Your task to perform on an android device: add a contact Image 0: 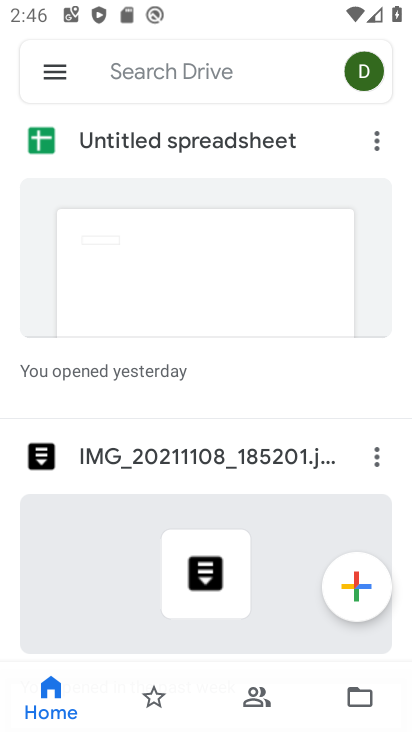
Step 0: press home button
Your task to perform on an android device: add a contact Image 1: 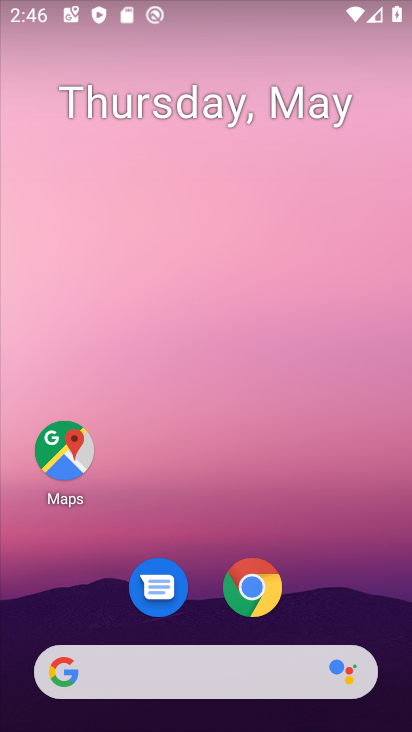
Step 1: drag from (185, 512) to (125, 2)
Your task to perform on an android device: add a contact Image 2: 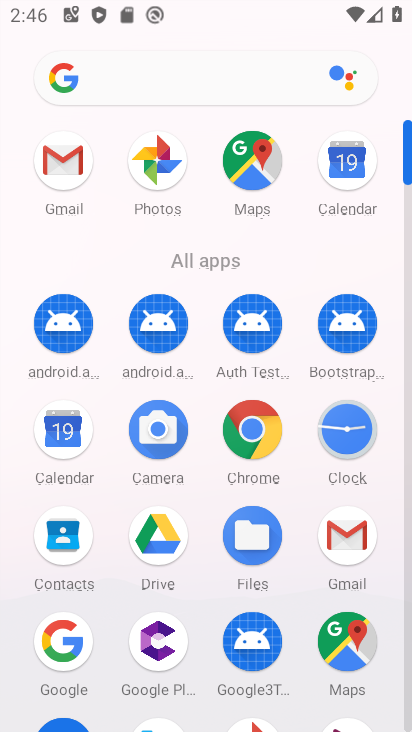
Step 2: click (68, 540)
Your task to perform on an android device: add a contact Image 3: 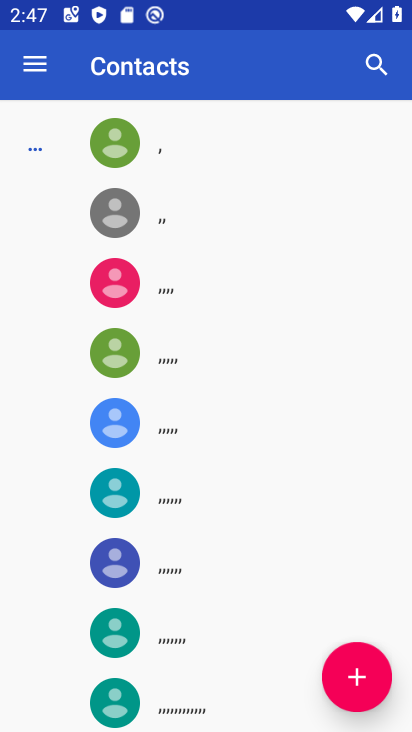
Step 3: click (340, 683)
Your task to perform on an android device: add a contact Image 4: 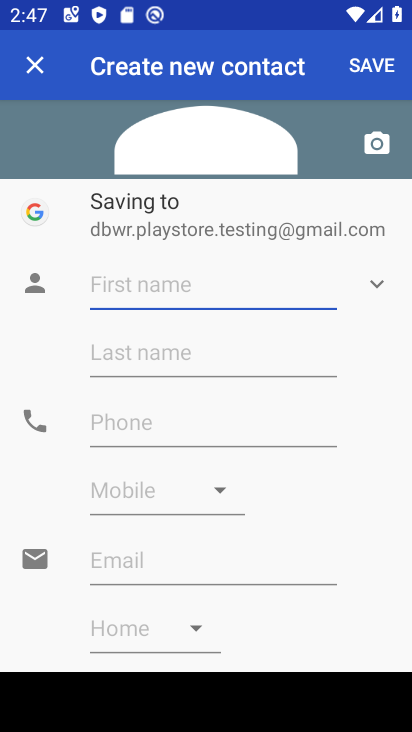
Step 4: type "jj"
Your task to perform on an android device: add a contact Image 5: 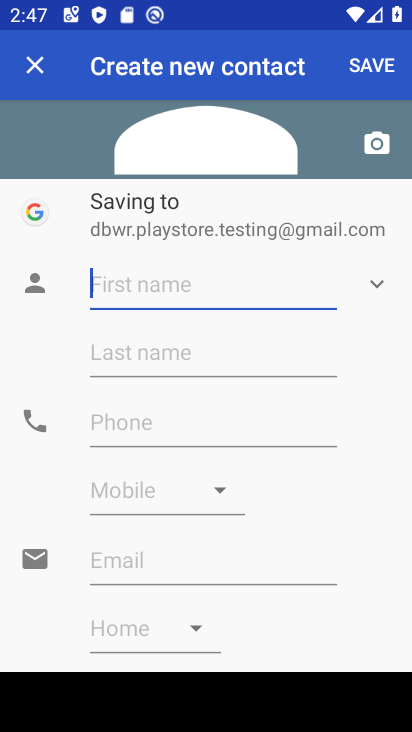
Step 5: click (287, 417)
Your task to perform on an android device: add a contact Image 6: 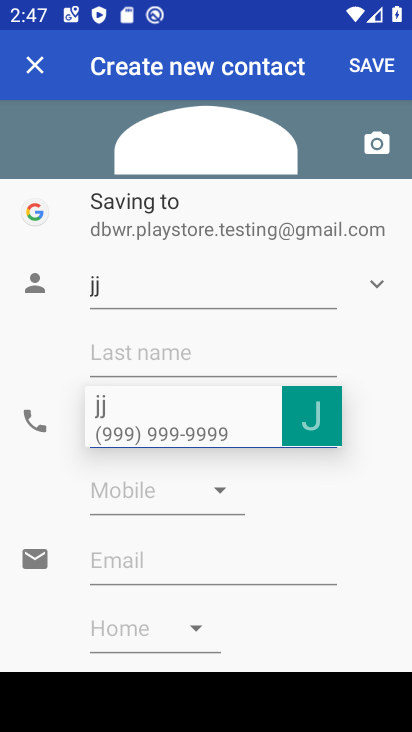
Step 6: type "7788778877"
Your task to perform on an android device: add a contact Image 7: 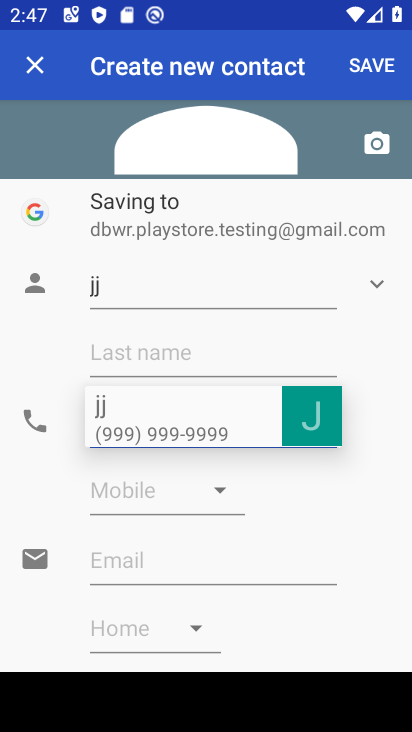
Step 7: click (382, 64)
Your task to perform on an android device: add a contact Image 8: 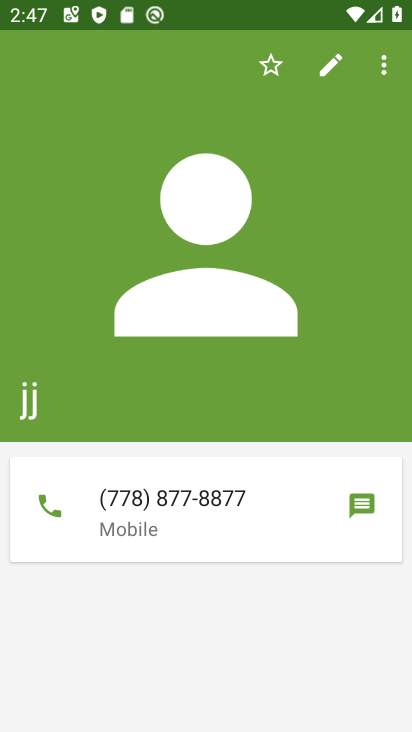
Step 8: task complete